Your task to perform on an android device: What's the weather today? Image 0: 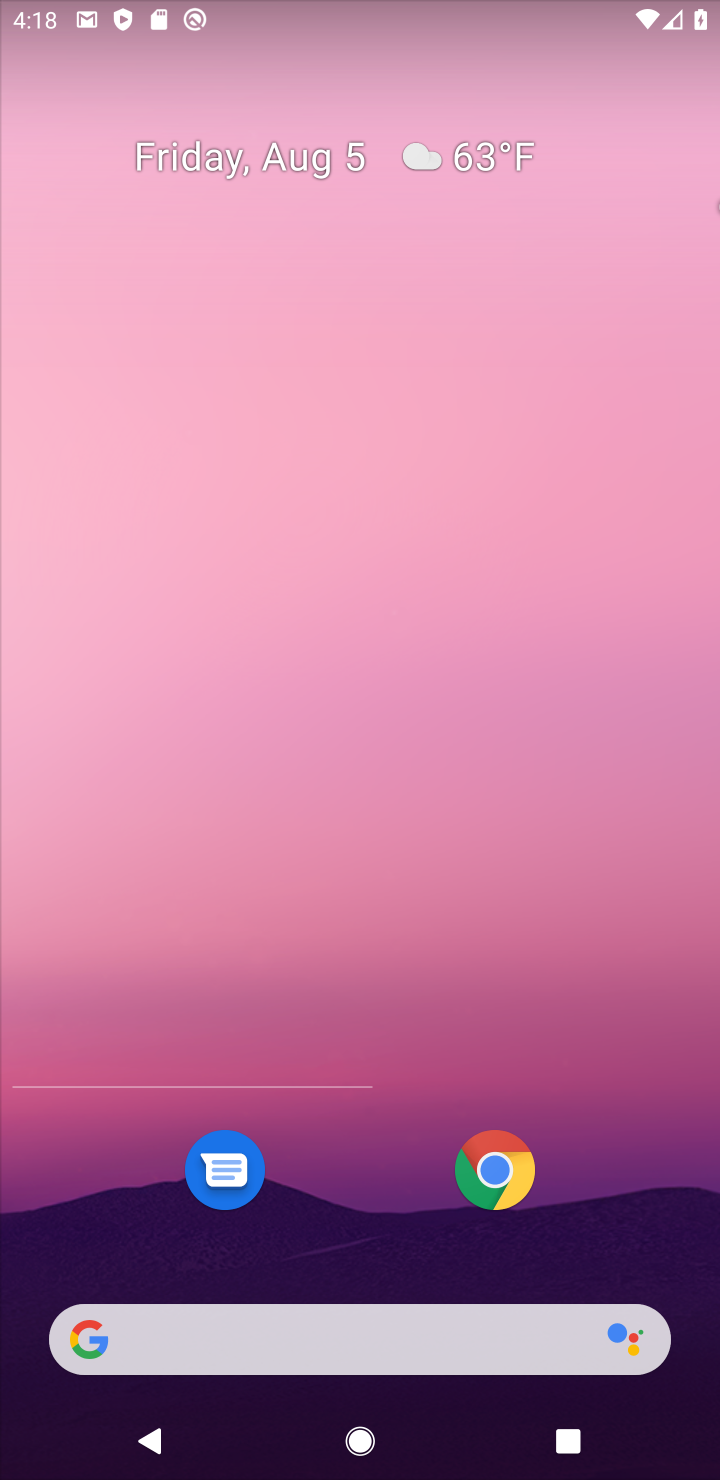
Step 0: press home button
Your task to perform on an android device: What's the weather today? Image 1: 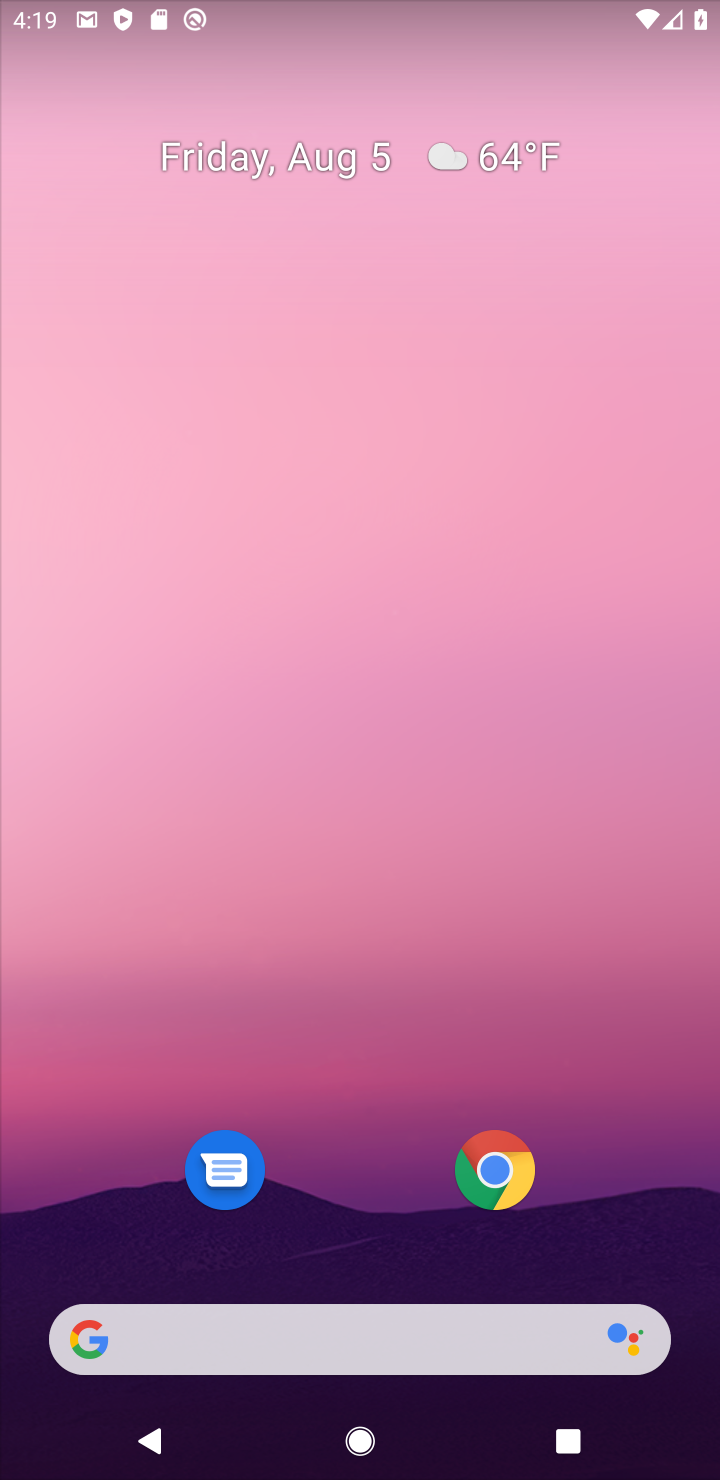
Step 1: click (76, 1323)
Your task to perform on an android device: What's the weather today? Image 2: 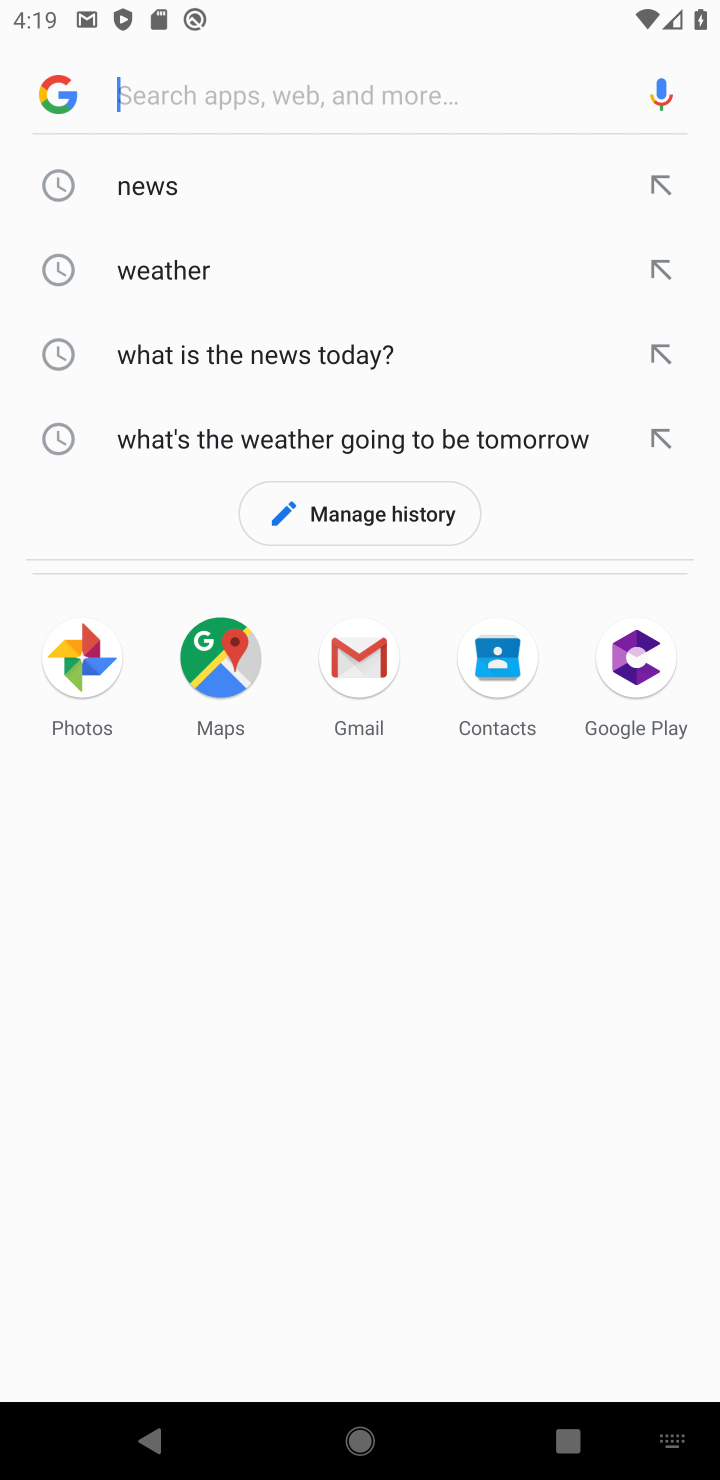
Step 2: type "weather today?"
Your task to perform on an android device: What's the weather today? Image 3: 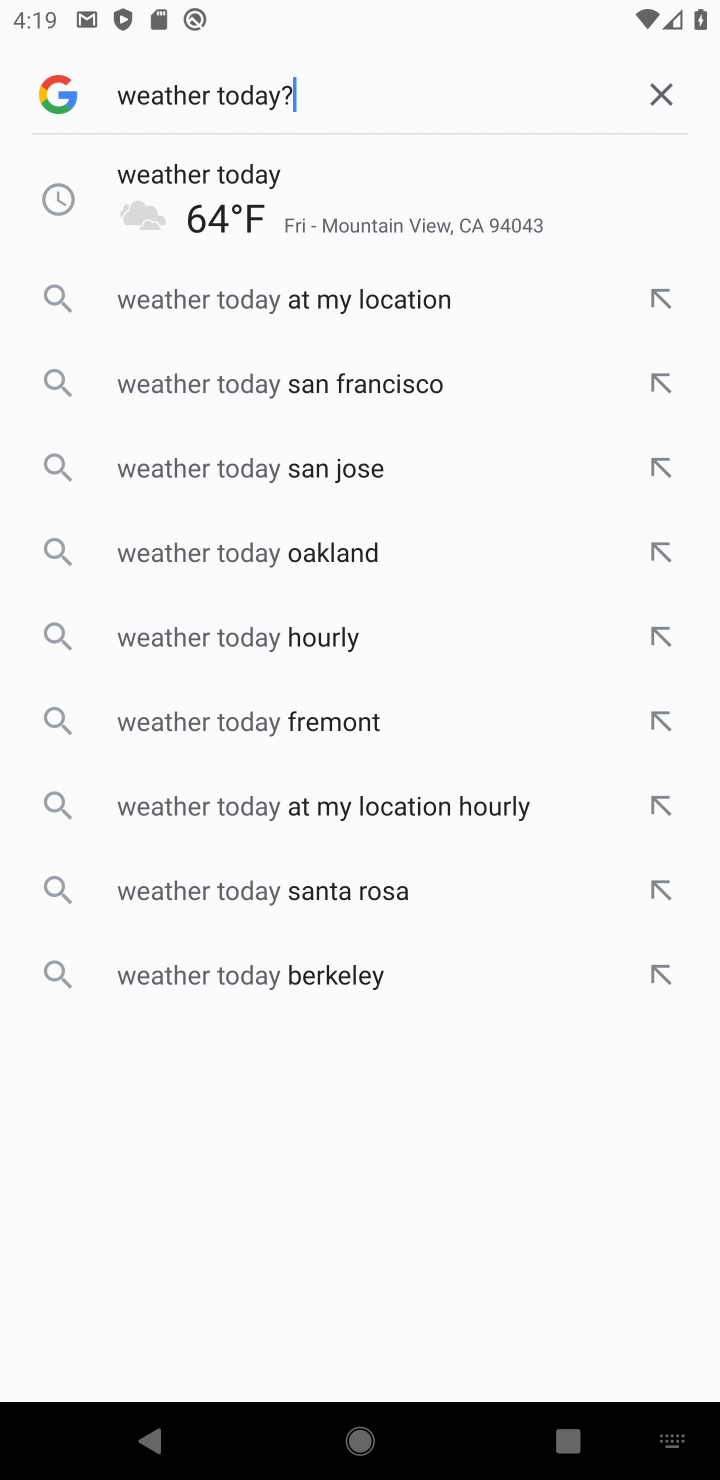
Step 3: press enter
Your task to perform on an android device: What's the weather today? Image 4: 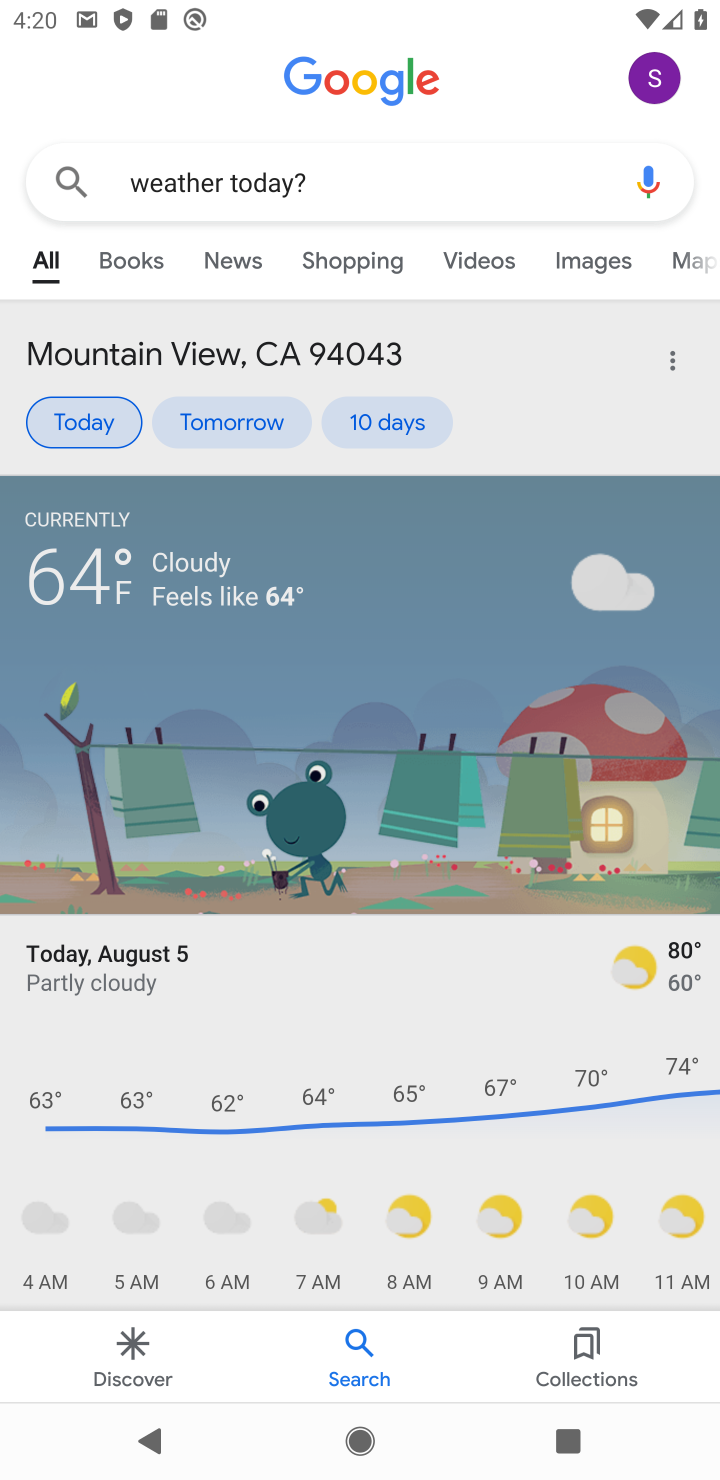
Step 4: task complete